Your task to perform on an android device: Open network settings Image 0: 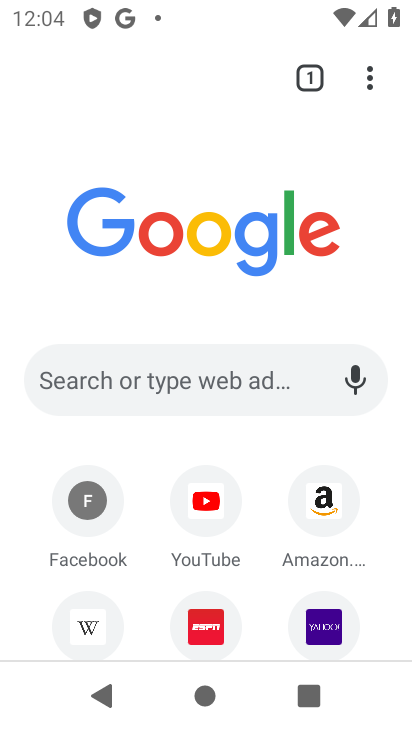
Step 0: press home button
Your task to perform on an android device: Open network settings Image 1: 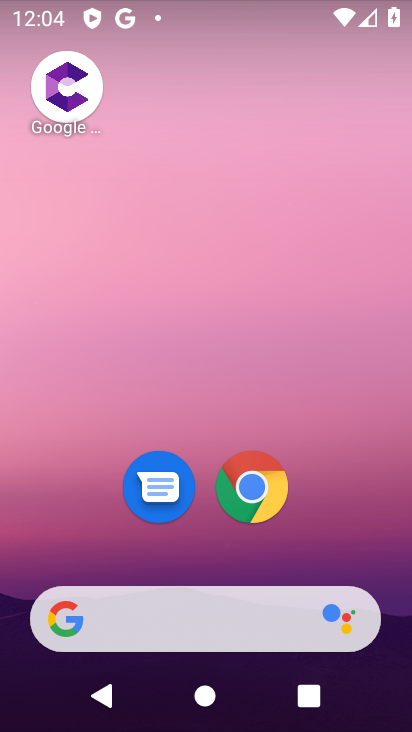
Step 1: drag from (318, 544) to (270, 148)
Your task to perform on an android device: Open network settings Image 2: 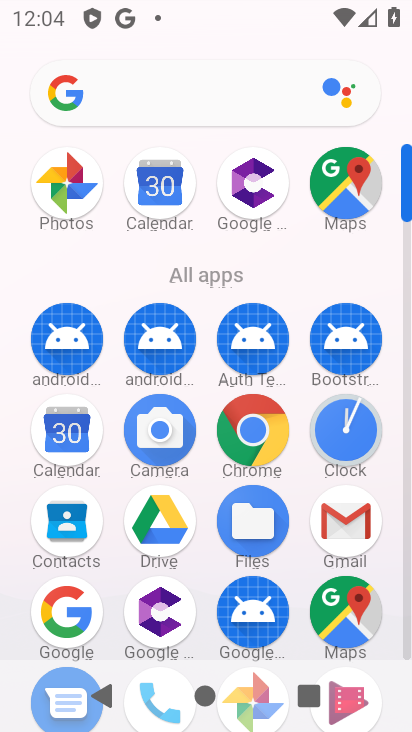
Step 2: drag from (122, 479) to (108, 280)
Your task to perform on an android device: Open network settings Image 3: 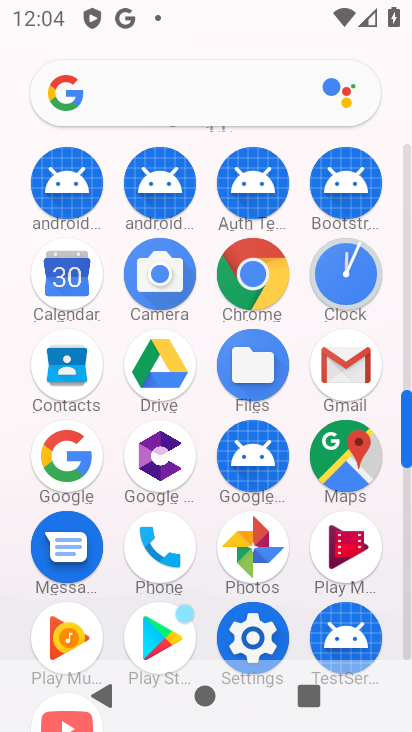
Step 3: click (254, 637)
Your task to perform on an android device: Open network settings Image 4: 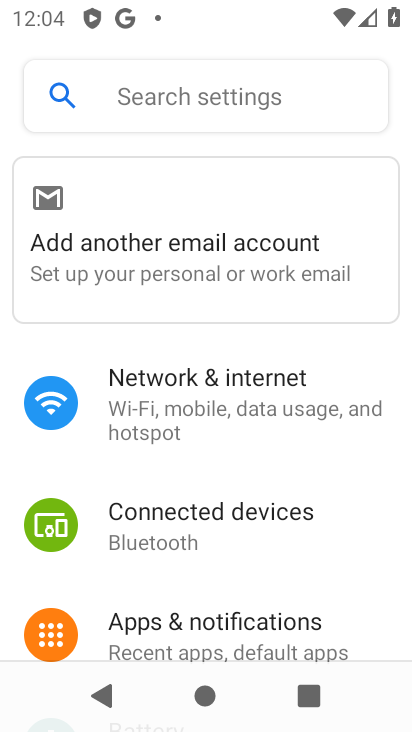
Step 4: click (169, 380)
Your task to perform on an android device: Open network settings Image 5: 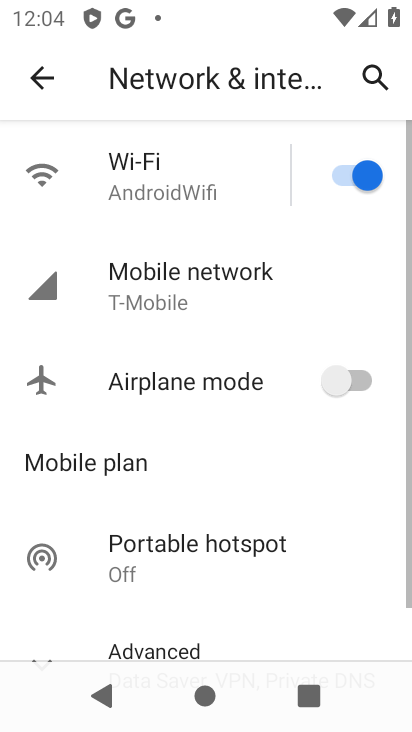
Step 5: click (199, 287)
Your task to perform on an android device: Open network settings Image 6: 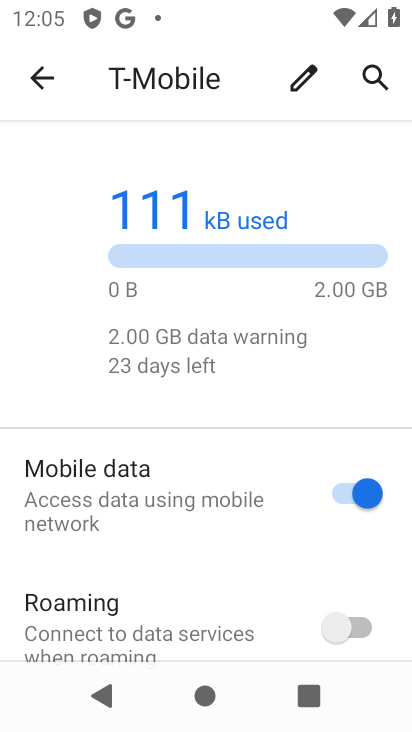
Step 6: task complete